Your task to perform on an android device: What is the recent news? Image 0: 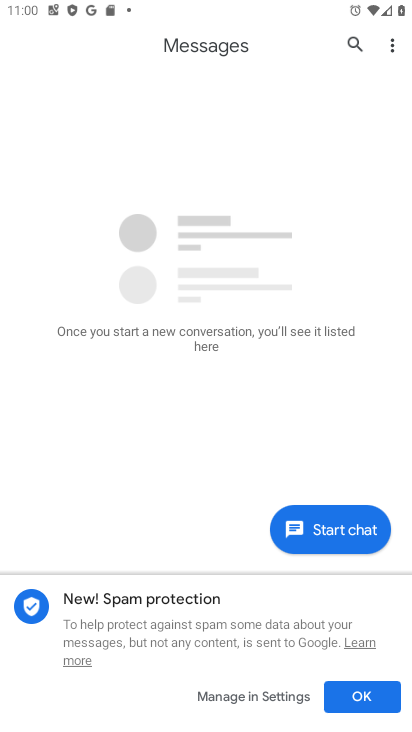
Step 0: press home button
Your task to perform on an android device: What is the recent news? Image 1: 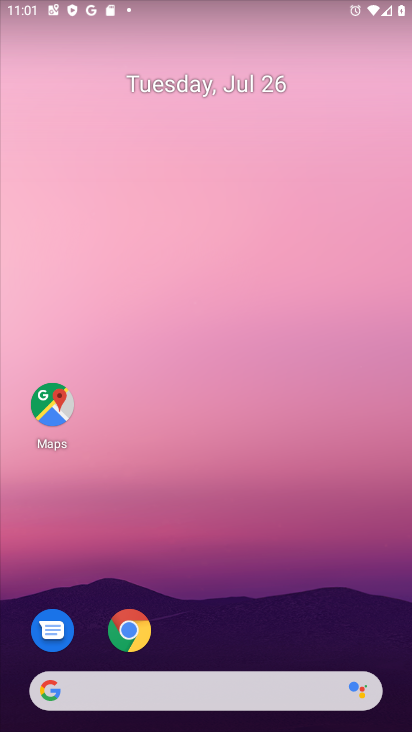
Step 1: click (103, 698)
Your task to perform on an android device: What is the recent news? Image 2: 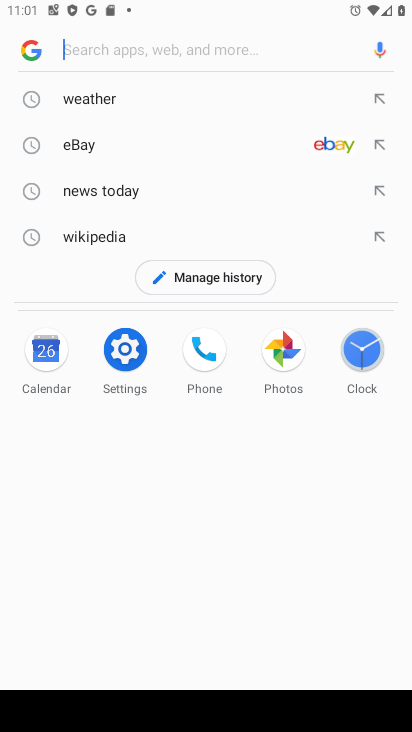
Step 2: type "recent news"
Your task to perform on an android device: What is the recent news? Image 3: 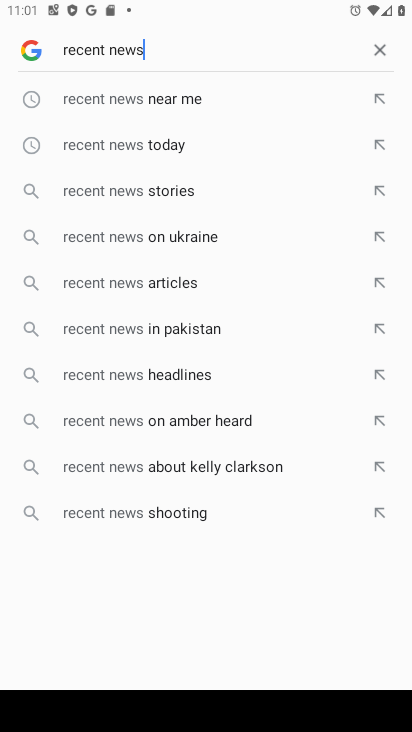
Step 3: press enter
Your task to perform on an android device: What is the recent news? Image 4: 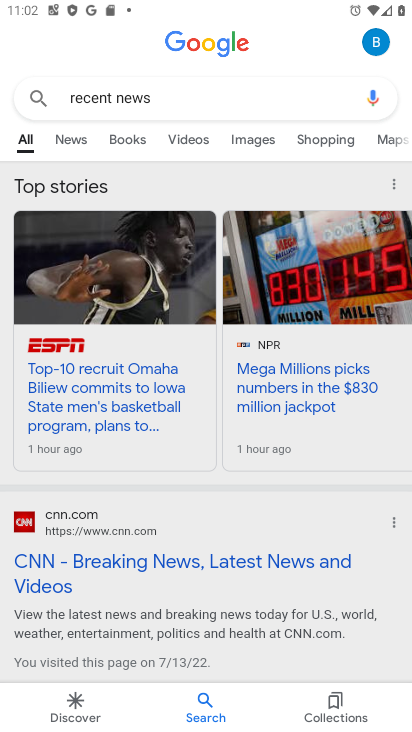
Step 4: task complete